Your task to perform on an android device: make emails show in primary in the gmail app Image 0: 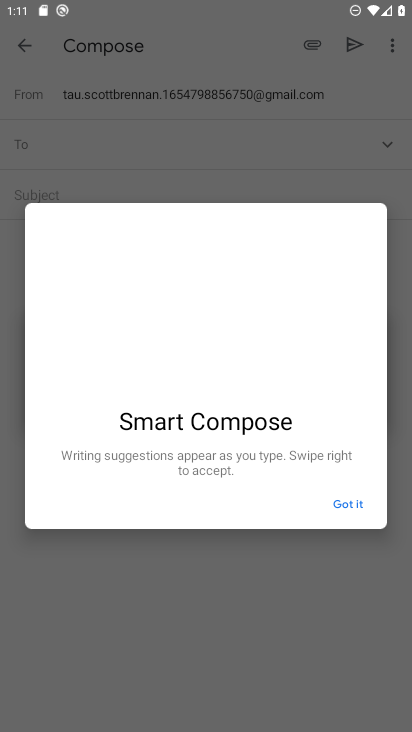
Step 0: press home button
Your task to perform on an android device: make emails show in primary in the gmail app Image 1: 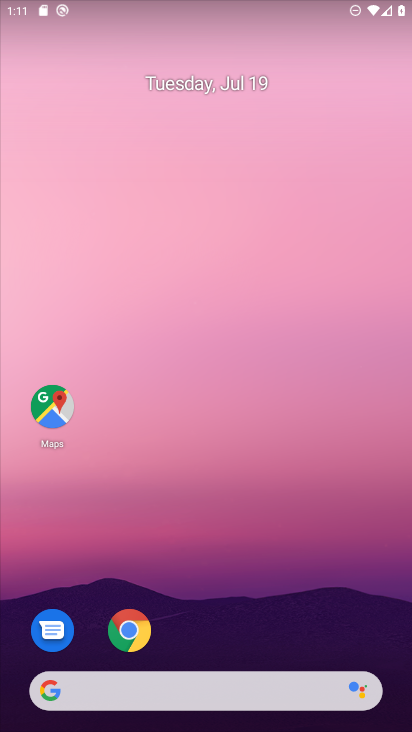
Step 1: drag from (182, 687) to (303, 129)
Your task to perform on an android device: make emails show in primary in the gmail app Image 2: 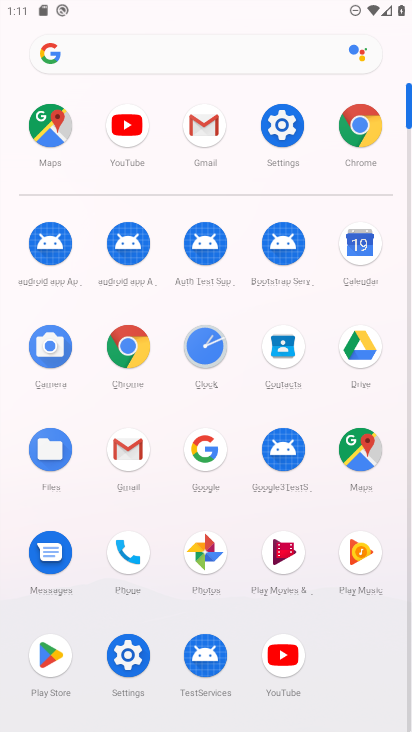
Step 2: click (212, 126)
Your task to perform on an android device: make emails show in primary in the gmail app Image 3: 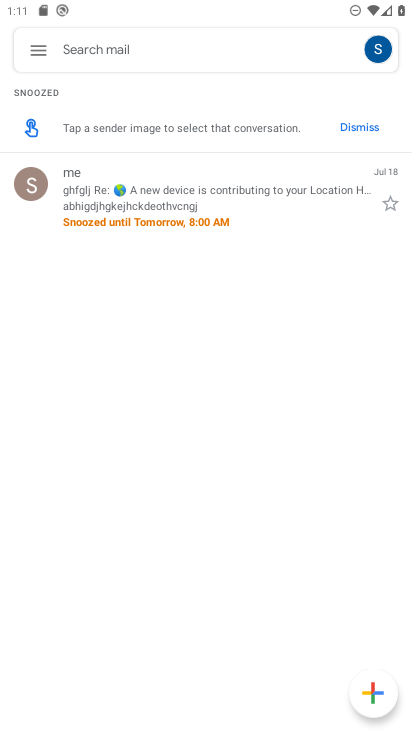
Step 3: click (34, 54)
Your task to perform on an android device: make emails show in primary in the gmail app Image 4: 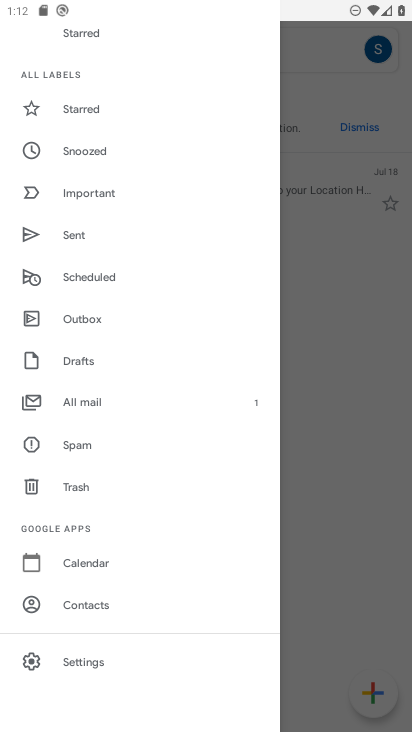
Step 4: click (89, 663)
Your task to perform on an android device: make emails show in primary in the gmail app Image 5: 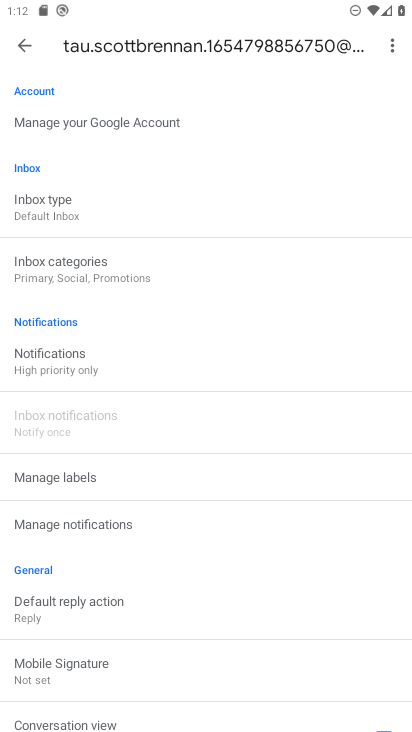
Step 5: click (74, 283)
Your task to perform on an android device: make emails show in primary in the gmail app Image 6: 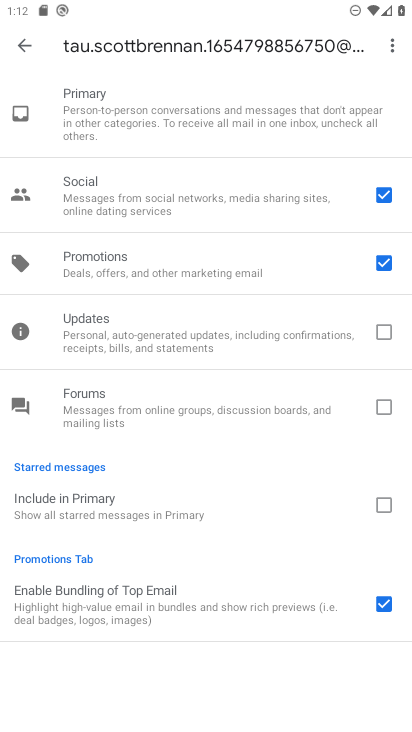
Step 6: click (379, 194)
Your task to perform on an android device: make emails show in primary in the gmail app Image 7: 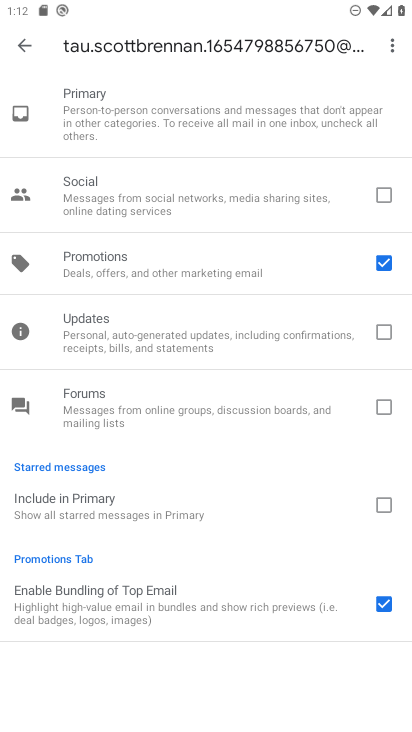
Step 7: click (392, 262)
Your task to perform on an android device: make emails show in primary in the gmail app Image 8: 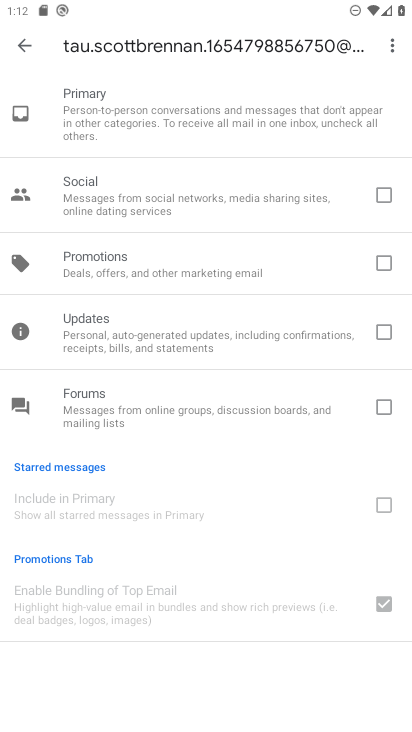
Step 8: click (23, 42)
Your task to perform on an android device: make emails show in primary in the gmail app Image 9: 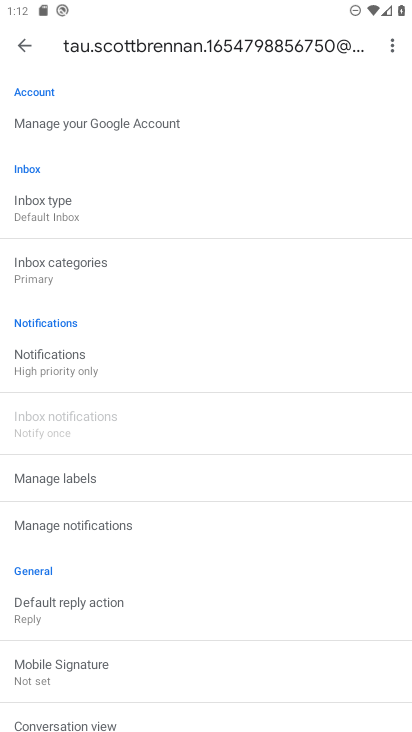
Step 9: task complete